Your task to perform on an android device: Open the Play Movies app and select the watchlist tab. Image 0: 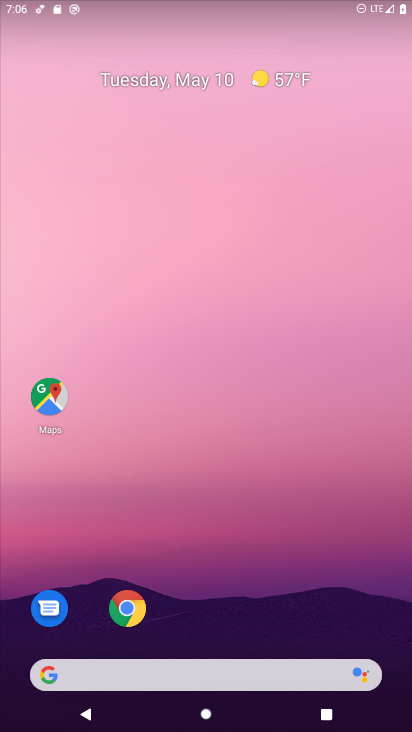
Step 0: drag from (317, 605) to (252, 7)
Your task to perform on an android device: Open the Play Movies app and select the watchlist tab. Image 1: 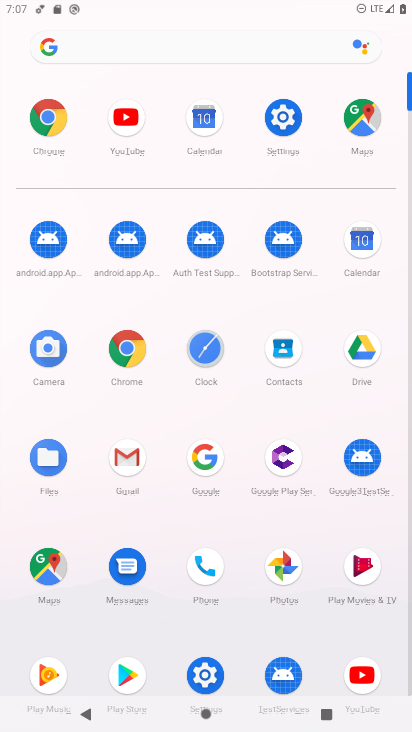
Step 1: click (370, 579)
Your task to perform on an android device: Open the Play Movies app and select the watchlist tab. Image 2: 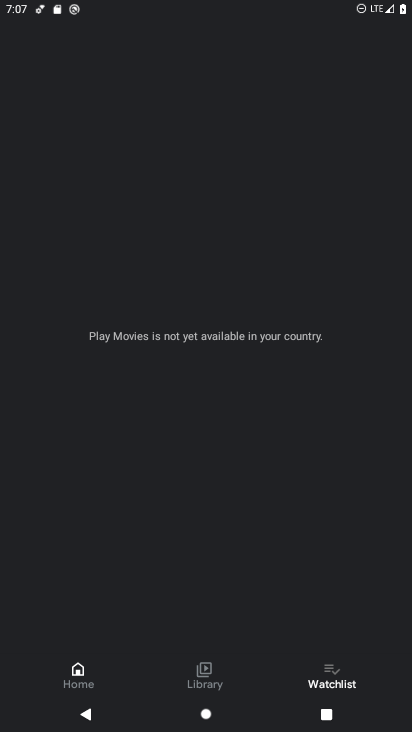
Step 2: task complete